Your task to perform on an android device: Find coffee shops on Maps Image 0: 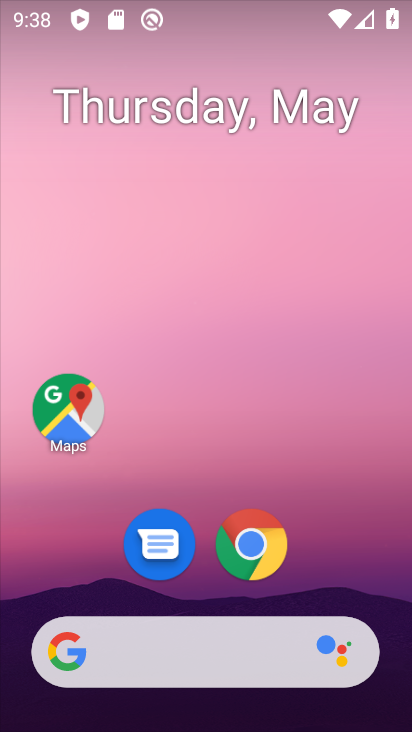
Step 0: click (64, 407)
Your task to perform on an android device: Find coffee shops on Maps Image 1: 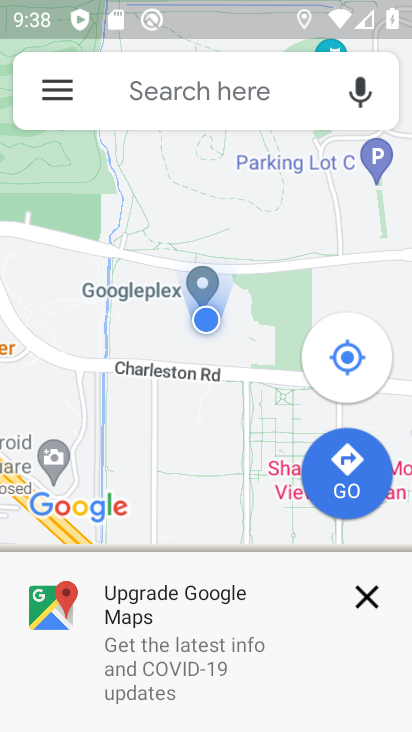
Step 1: click (143, 104)
Your task to perform on an android device: Find coffee shops on Maps Image 2: 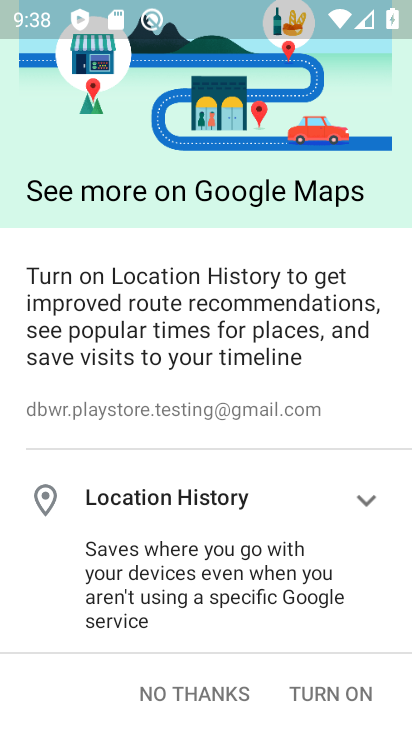
Step 2: type "coffee shops"
Your task to perform on an android device: Find coffee shops on Maps Image 3: 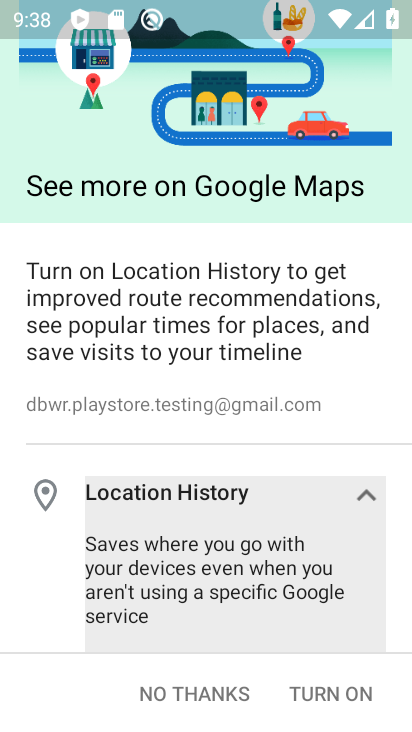
Step 3: click (318, 707)
Your task to perform on an android device: Find coffee shops on Maps Image 4: 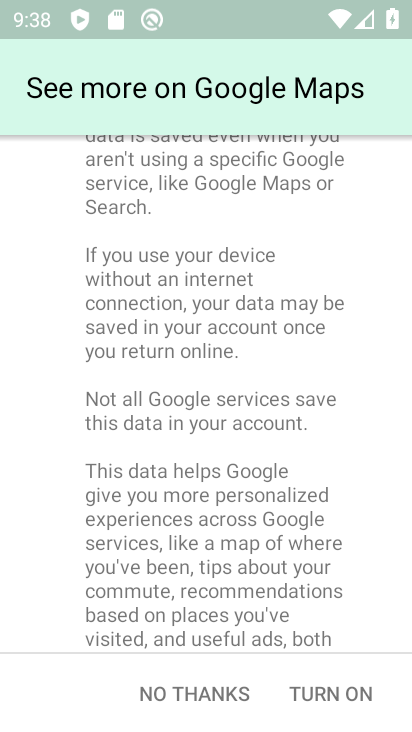
Step 4: click (280, 689)
Your task to perform on an android device: Find coffee shops on Maps Image 5: 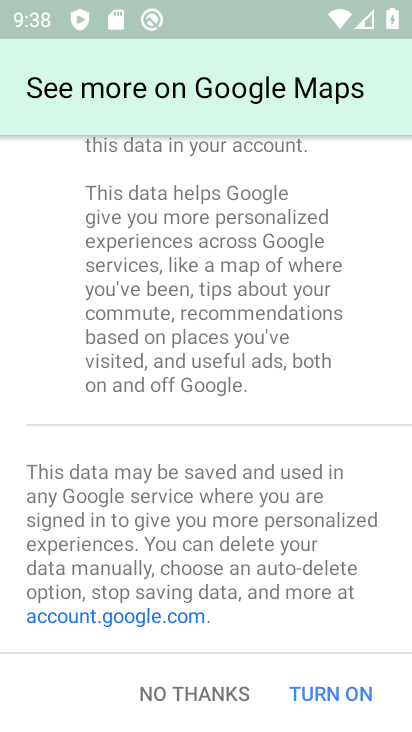
Step 5: click (341, 697)
Your task to perform on an android device: Find coffee shops on Maps Image 6: 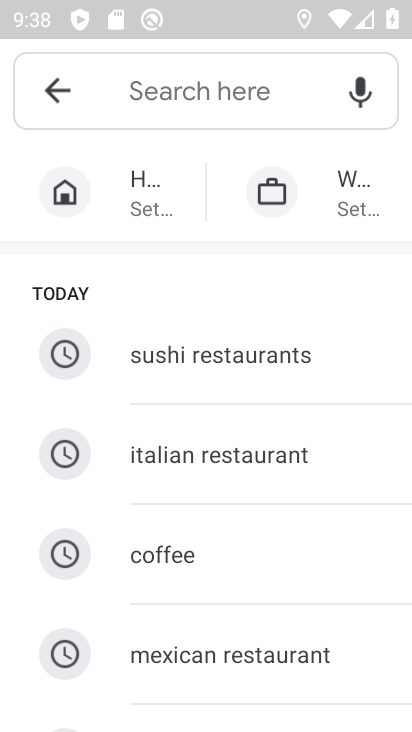
Step 6: click (188, 65)
Your task to perform on an android device: Find coffee shops on Maps Image 7: 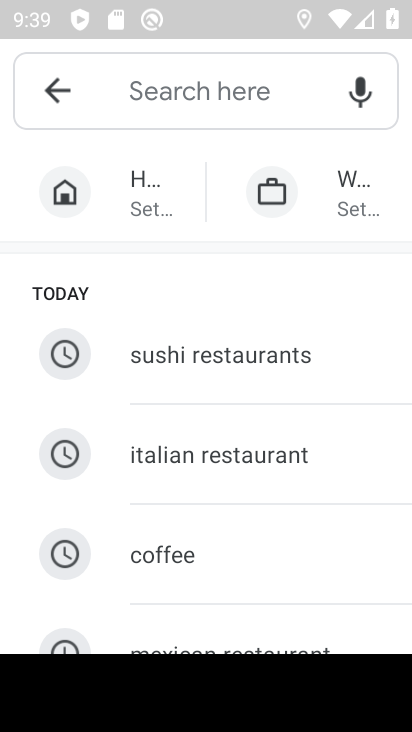
Step 7: type "coffee shops"
Your task to perform on an android device: Find coffee shops on Maps Image 8: 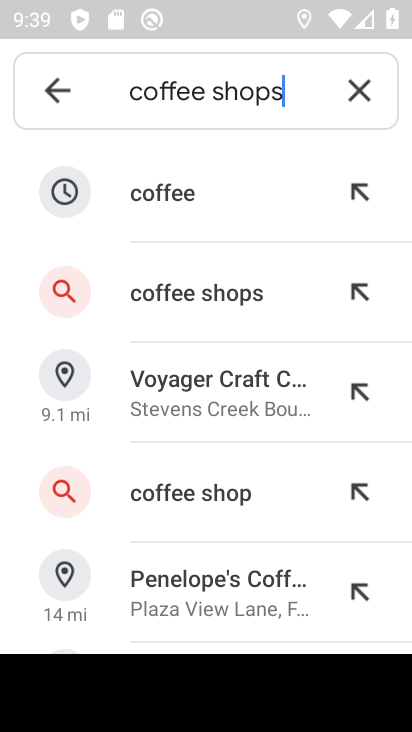
Step 8: click (216, 302)
Your task to perform on an android device: Find coffee shops on Maps Image 9: 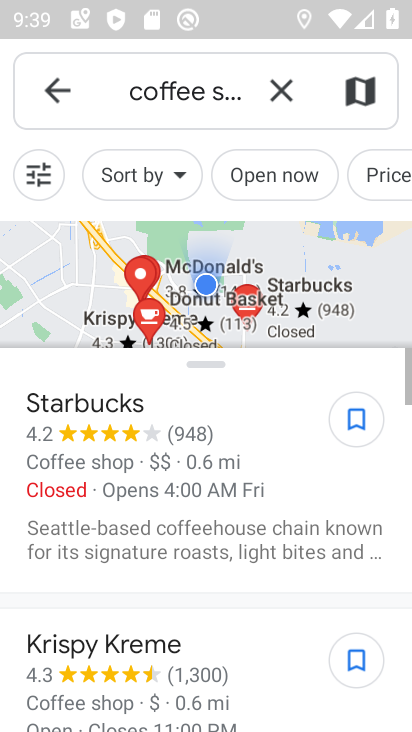
Step 9: task complete